Your task to perform on an android device: Open Chrome and go to settings Image 0: 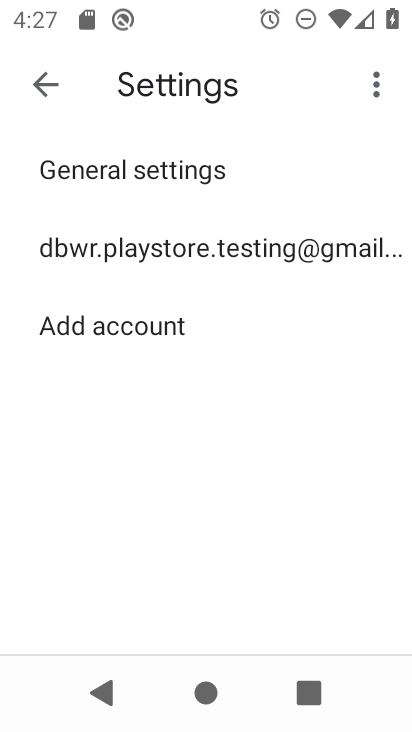
Step 0: press home button
Your task to perform on an android device: Open Chrome and go to settings Image 1: 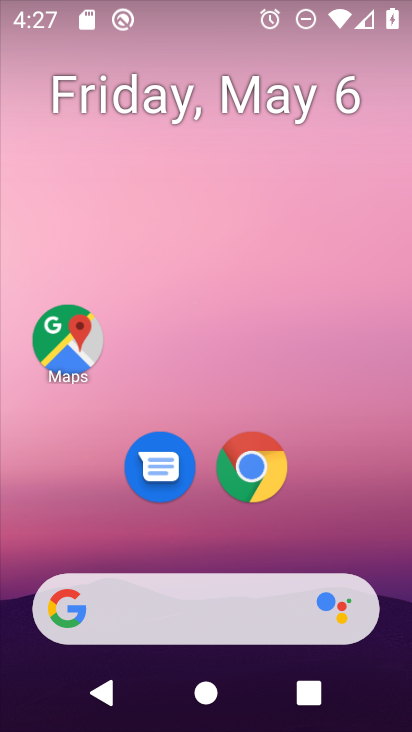
Step 1: click (261, 479)
Your task to perform on an android device: Open Chrome and go to settings Image 2: 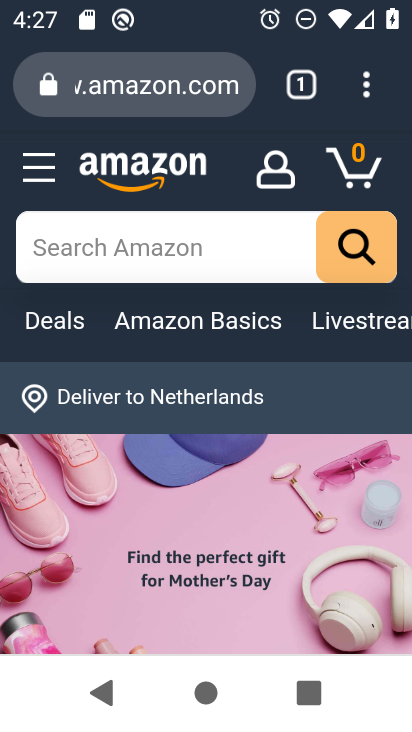
Step 2: click (365, 89)
Your task to perform on an android device: Open Chrome and go to settings Image 3: 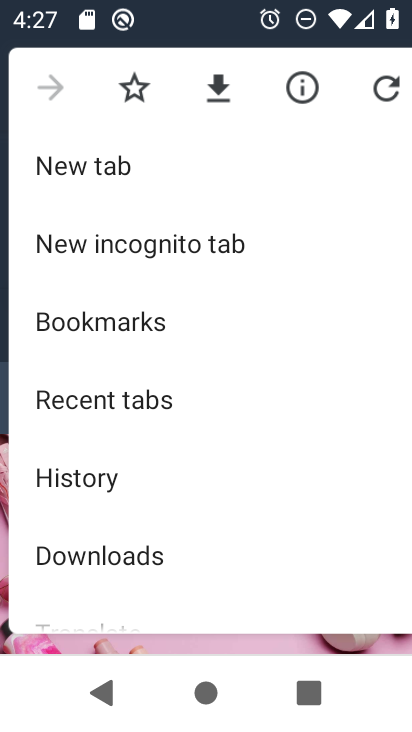
Step 3: drag from (164, 508) to (214, 146)
Your task to perform on an android device: Open Chrome and go to settings Image 4: 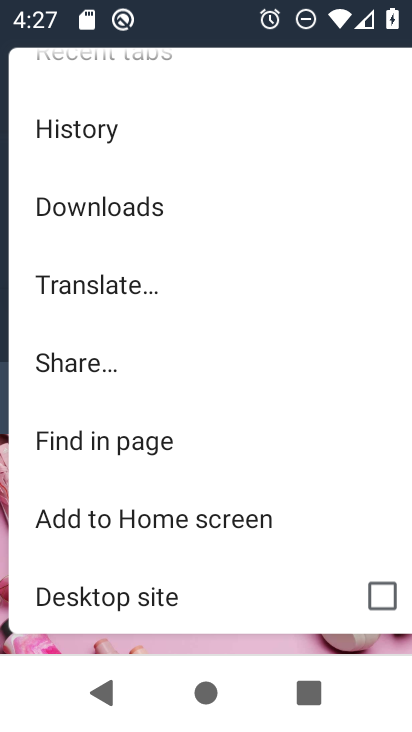
Step 4: drag from (191, 520) to (222, 148)
Your task to perform on an android device: Open Chrome and go to settings Image 5: 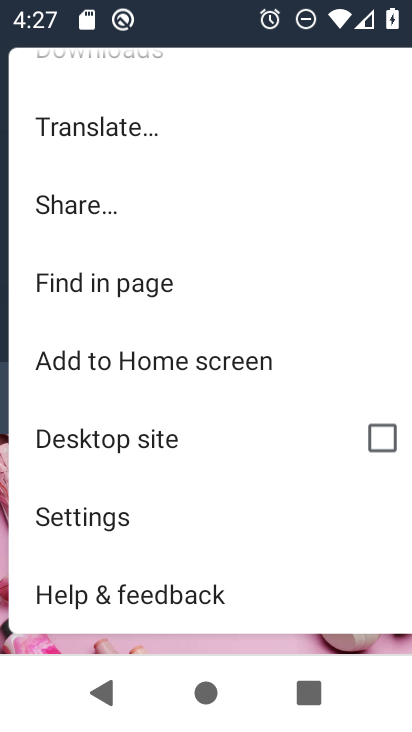
Step 5: click (108, 518)
Your task to perform on an android device: Open Chrome and go to settings Image 6: 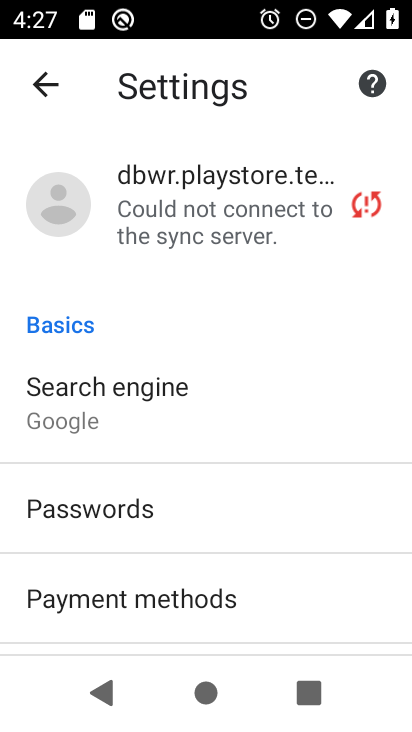
Step 6: task complete